Your task to perform on an android device: Go to Yahoo.com Image 0: 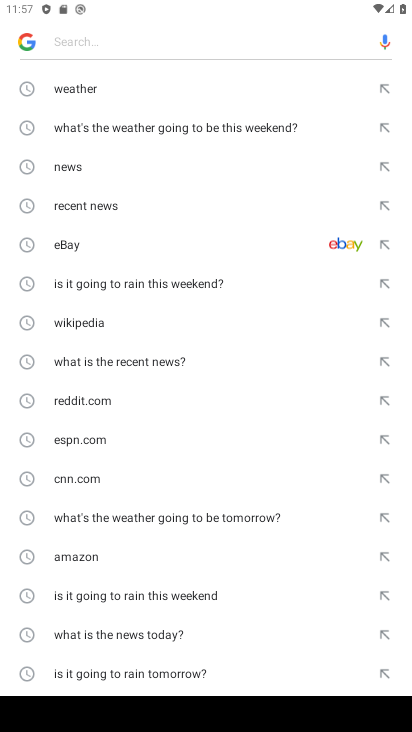
Step 0: press home button
Your task to perform on an android device: Go to Yahoo.com Image 1: 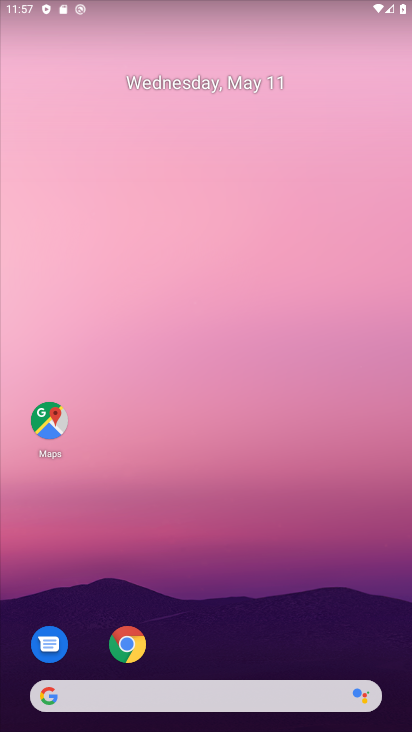
Step 1: click (133, 650)
Your task to perform on an android device: Go to Yahoo.com Image 2: 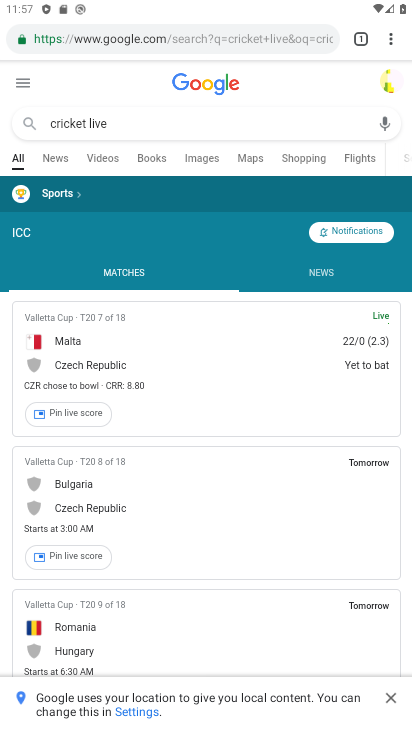
Step 2: click (367, 22)
Your task to perform on an android device: Go to Yahoo.com Image 3: 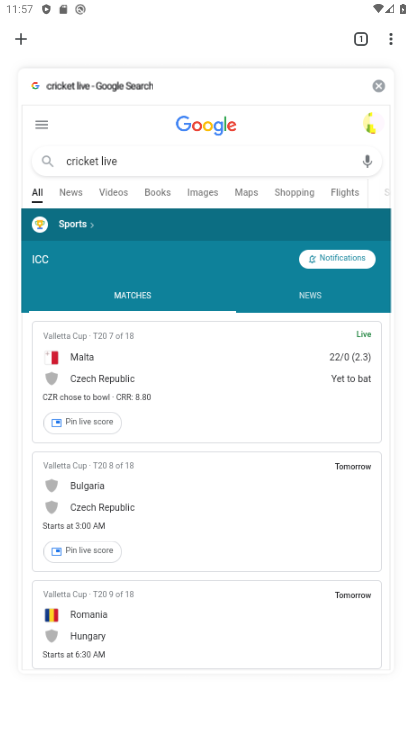
Step 3: click (23, 47)
Your task to perform on an android device: Go to Yahoo.com Image 4: 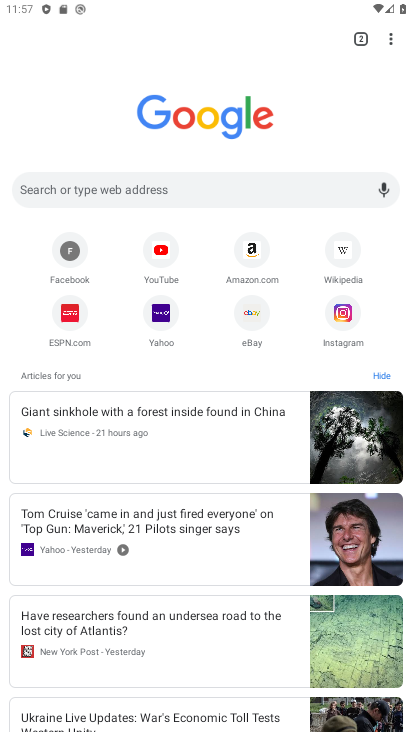
Step 4: click (156, 318)
Your task to perform on an android device: Go to Yahoo.com Image 5: 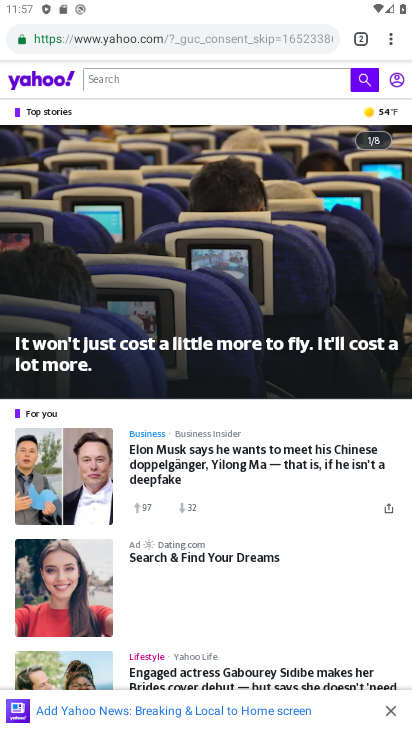
Step 5: task complete